Your task to perform on an android device: Open internet settings Image 0: 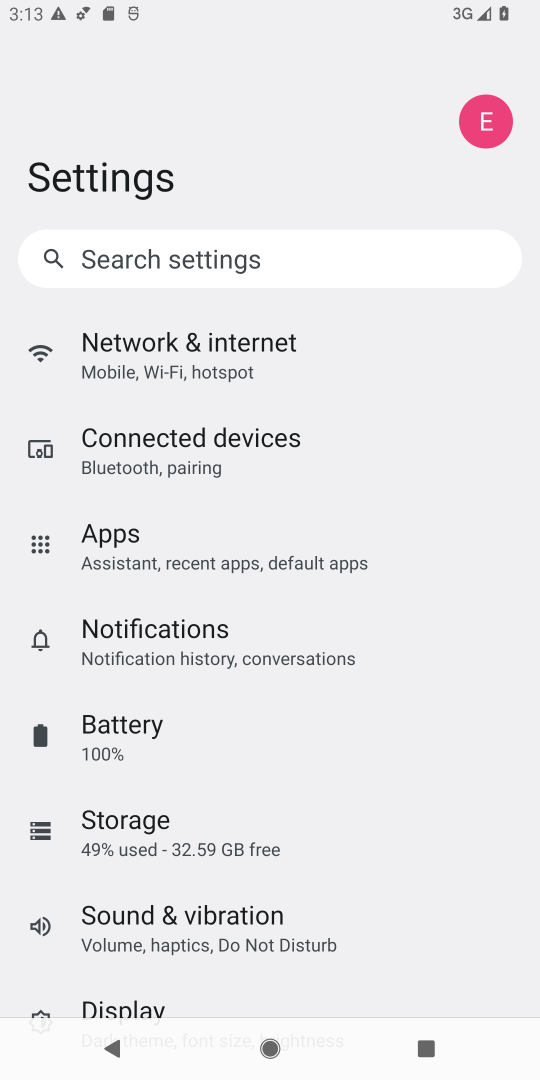
Step 0: click (169, 353)
Your task to perform on an android device: Open internet settings Image 1: 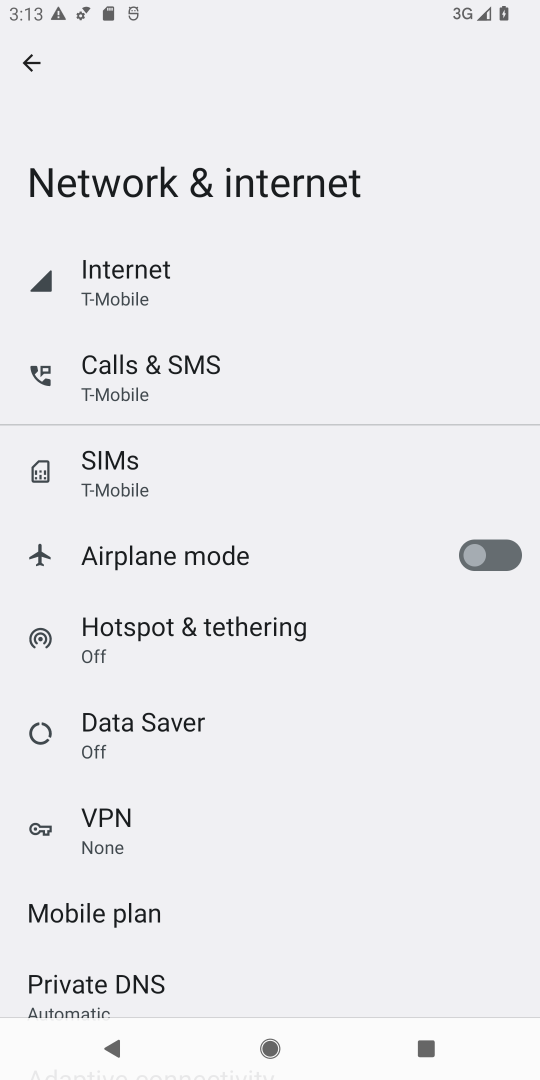
Step 1: click (129, 302)
Your task to perform on an android device: Open internet settings Image 2: 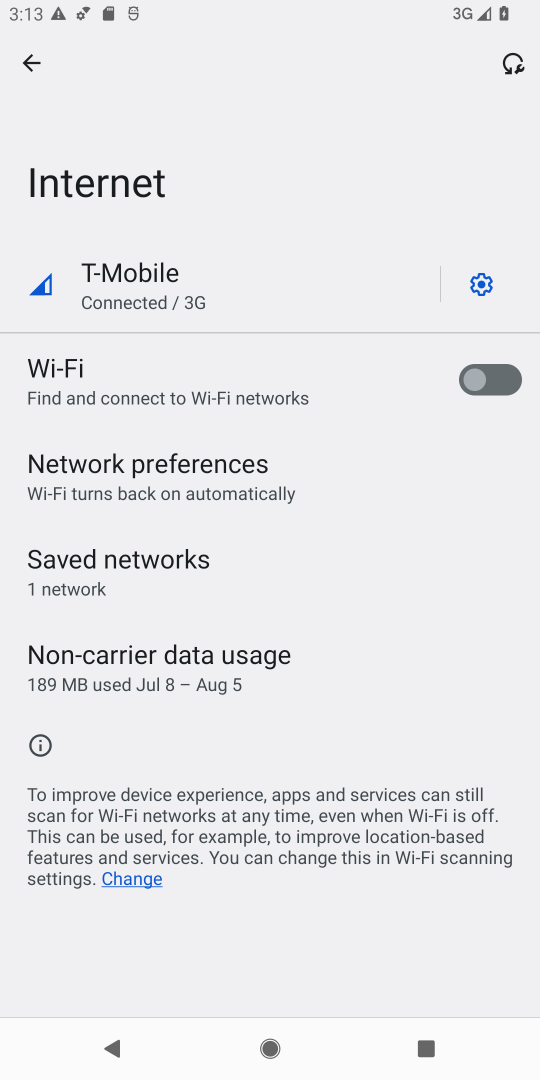
Step 2: task complete